Your task to perform on an android device: Add "macbook pro 13 inch" to the cart on costco.com, then select checkout. Image 0: 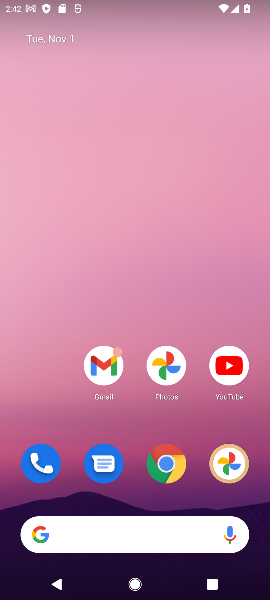
Step 0: click (194, 121)
Your task to perform on an android device: Add "macbook pro 13 inch" to the cart on costco.com, then select checkout. Image 1: 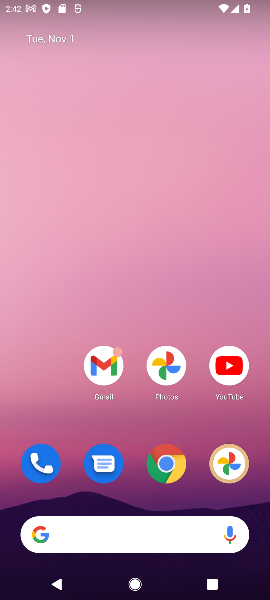
Step 1: drag from (106, 512) to (126, 115)
Your task to perform on an android device: Add "macbook pro 13 inch" to the cart on costco.com, then select checkout. Image 2: 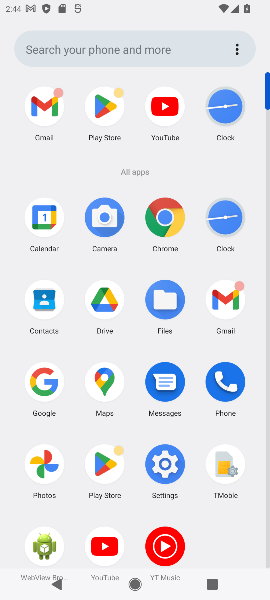
Step 2: click (169, 218)
Your task to perform on an android device: Add "macbook pro 13 inch" to the cart on costco.com, then select checkout. Image 3: 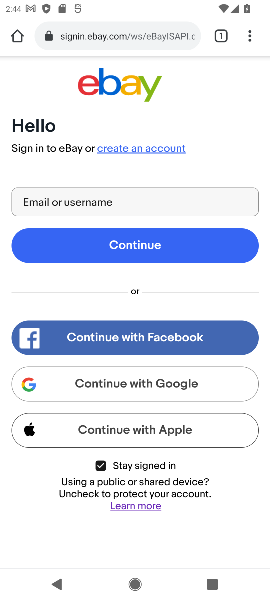
Step 3: click (182, 34)
Your task to perform on an android device: Add "macbook pro 13 inch" to the cart on costco.com, then select checkout. Image 4: 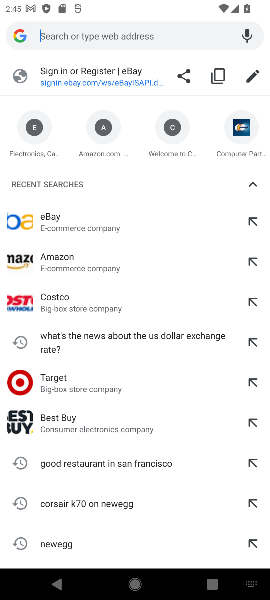
Step 4: type "costco.com"
Your task to perform on an android device: Add "macbook pro 13 inch" to the cart on costco.com, then select checkout. Image 5: 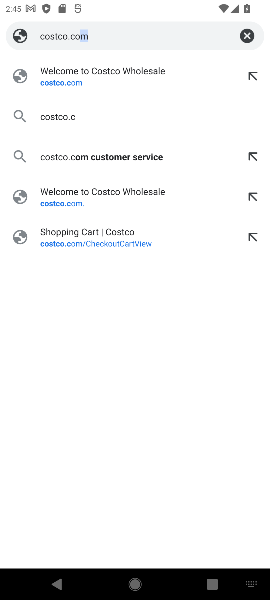
Step 5: press enter
Your task to perform on an android device: Add "macbook pro 13 inch" to the cart on costco.com, then select checkout. Image 6: 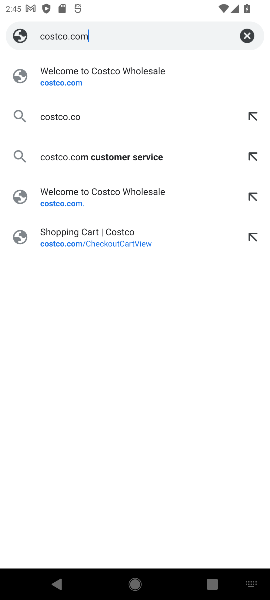
Step 6: type ""
Your task to perform on an android device: Add "macbook pro 13 inch" to the cart on costco.com, then select checkout. Image 7: 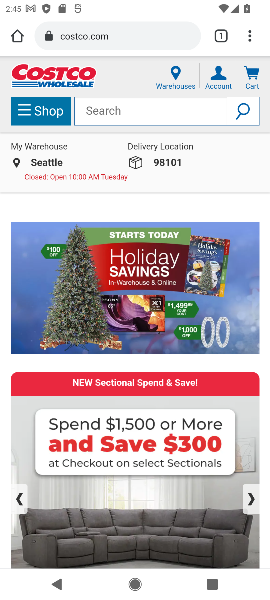
Step 7: click (139, 110)
Your task to perform on an android device: Add "macbook pro 13 inch" to the cart on costco.com, then select checkout. Image 8: 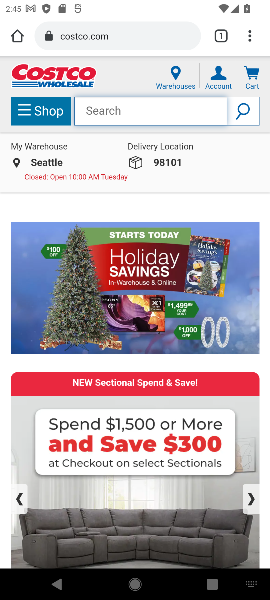
Step 8: type "macbook pro 13 inch"
Your task to perform on an android device: Add "macbook pro 13 inch" to the cart on costco.com, then select checkout. Image 9: 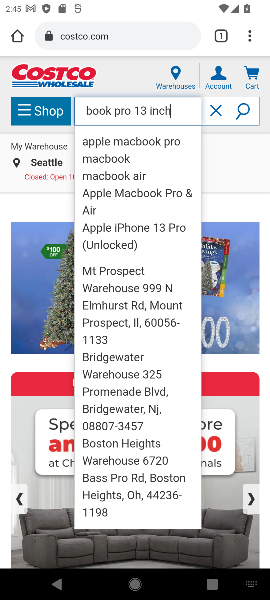
Step 9: press enter
Your task to perform on an android device: Add "macbook pro 13 inch" to the cart on costco.com, then select checkout. Image 10: 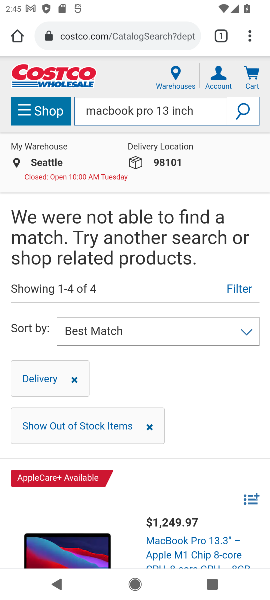
Step 10: task complete